Your task to perform on an android device: Open the phone app and click the voicemail tab. Image 0: 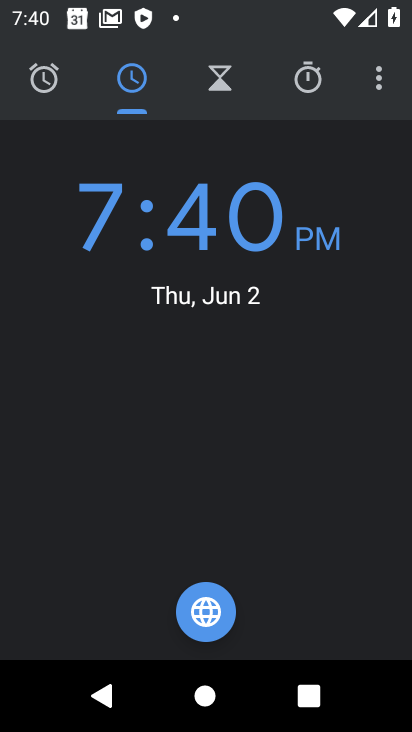
Step 0: press home button
Your task to perform on an android device: Open the phone app and click the voicemail tab. Image 1: 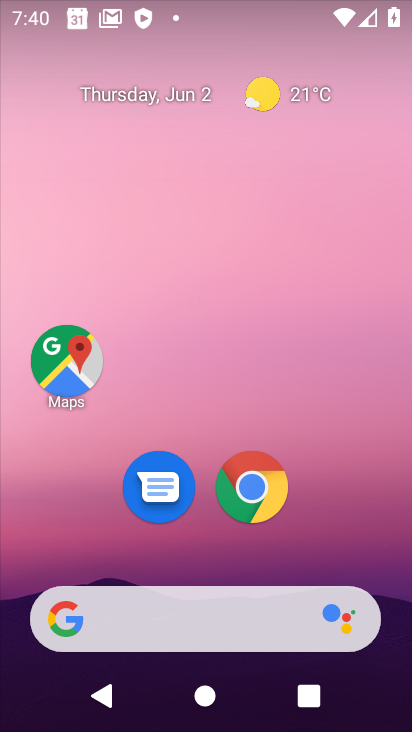
Step 1: drag from (278, 512) to (408, 308)
Your task to perform on an android device: Open the phone app and click the voicemail tab. Image 2: 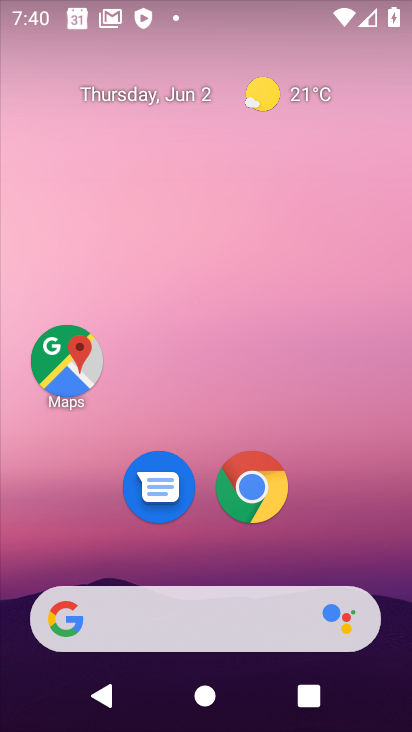
Step 2: drag from (201, 560) to (355, 3)
Your task to perform on an android device: Open the phone app and click the voicemail tab. Image 3: 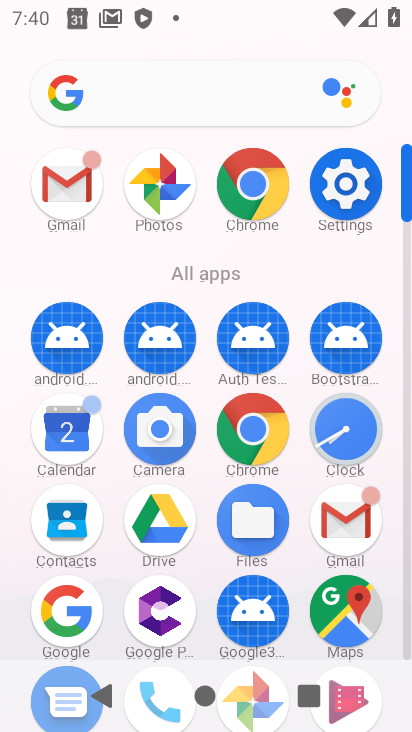
Step 3: click (145, 671)
Your task to perform on an android device: Open the phone app and click the voicemail tab. Image 4: 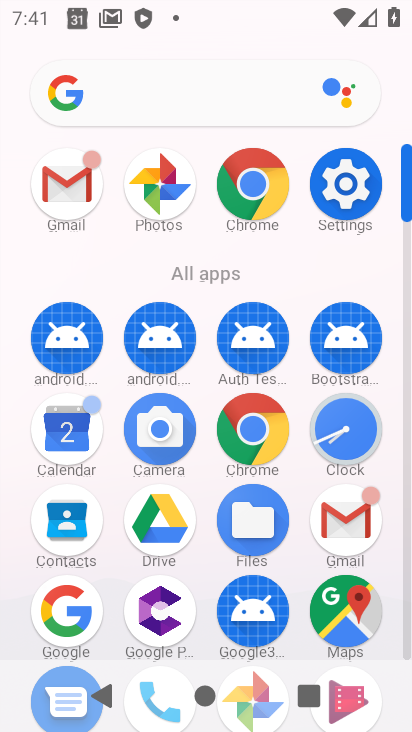
Step 4: drag from (193, 637) to (210, 467)
Your task to perform on an android device: Open the phone app and click the voicemail tab. Image 5: 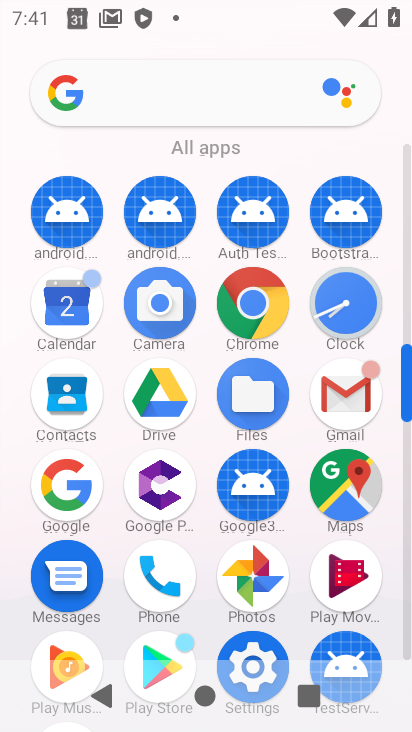
Step 5: click (162, 580)
Your task to perform on an android device: Open the phone app and click the voicemail tab. Image 6: 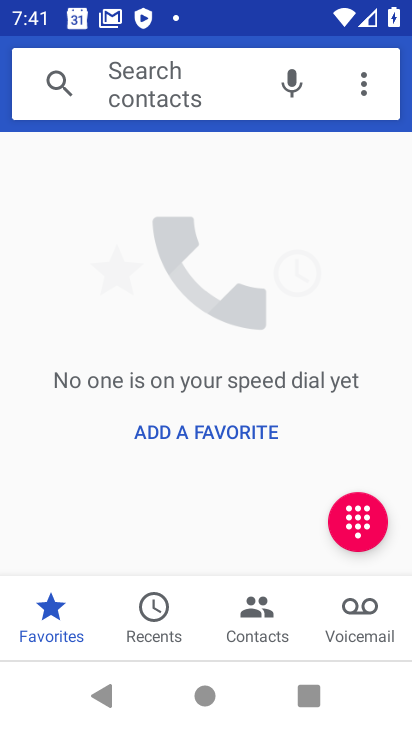
Step 6: click (352, 618)
Your task to perform on an android device: Open the phone app and click the voicemail tab. Image 7: 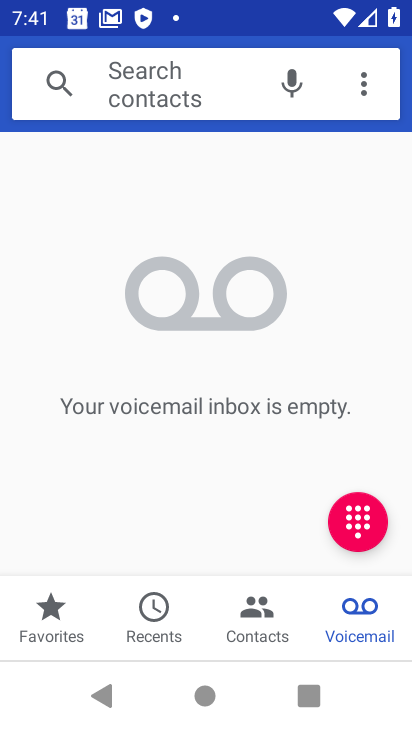
Step 7: task complete